Your task to perform on an android device: remove spam from my inbox in the gmail app Image 0: 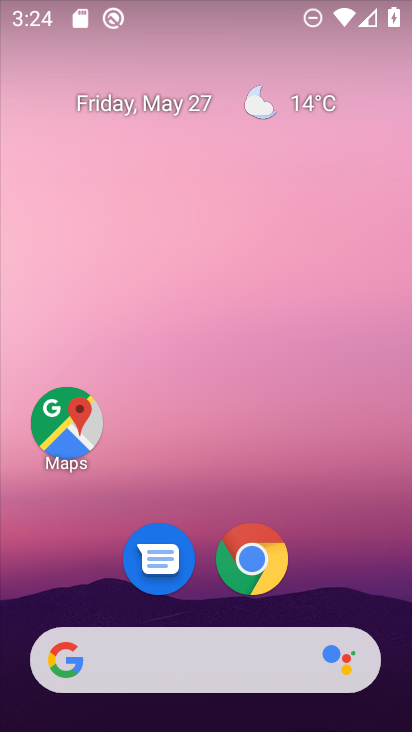
Step 0: drag from (354, 567) to (338, 96)
Your task to perform on an android device: remove spam from my inbox in the gmail app Image 1: 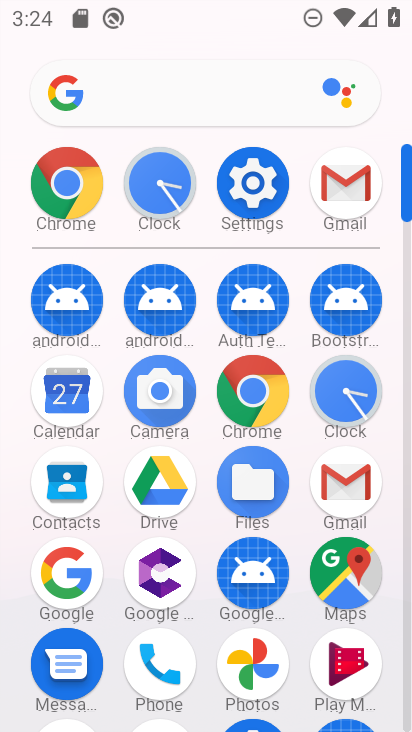
Step 1: click (348, 187)
Your task to perform on an android device: remove spam from my inbox in the gmail app Image 2: 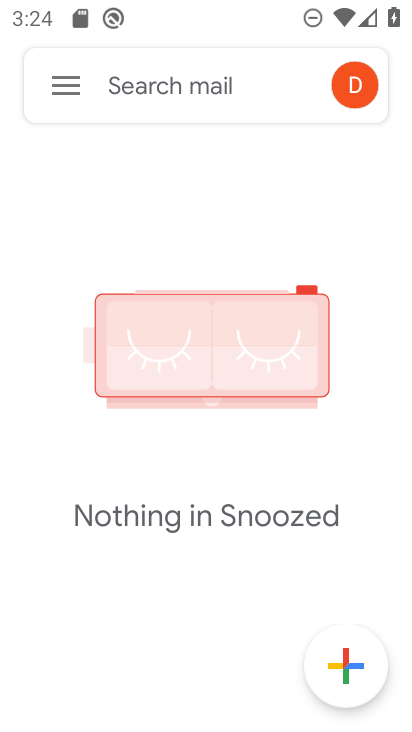
Step 2: click (61, 86)
Your task to perform on an android device: remove spam from my inbox in the gmail app Image 3: 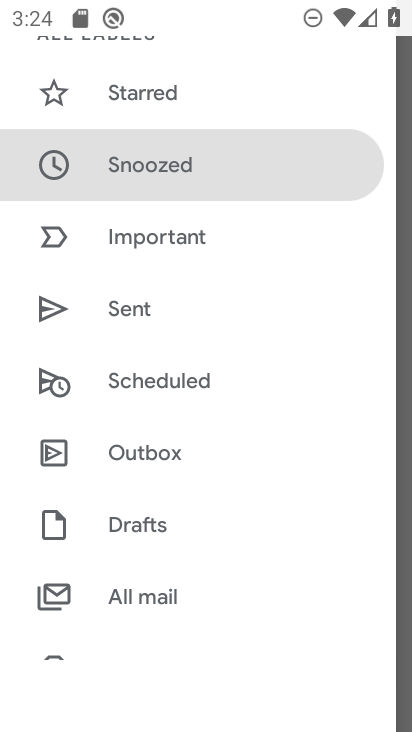
Step 3: drag from (252, 589) to (258, 293)
Your task to perform on an android device: remove spam from my inbox in the gmail app Image 4: 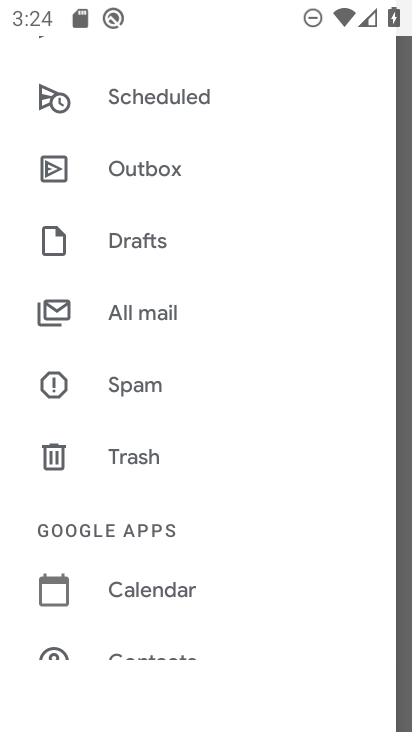
Step 4: click (144, 380)
Your task to perform on an android device: remove spam from my inbox in the gmail app Image 5: 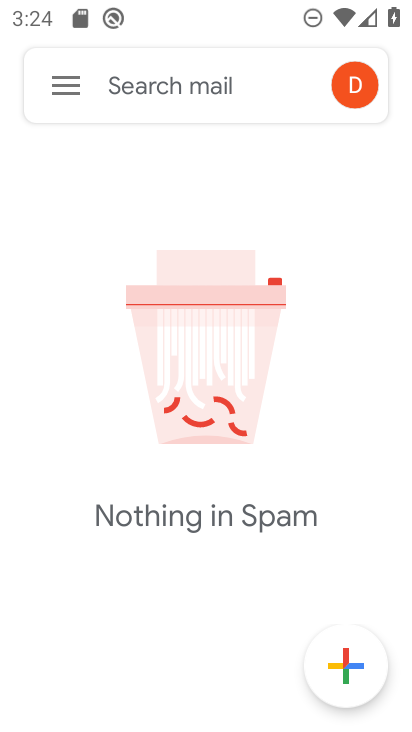
Step 5: task complete